Your task to perform on an android device: find photos in the google photos app Image 0: 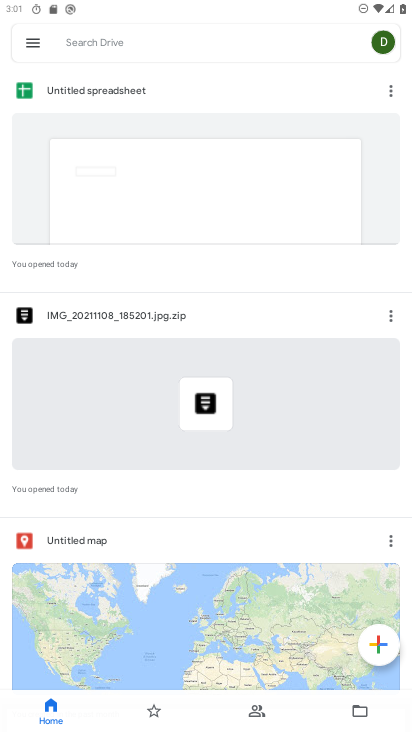
Step 0: press home button
Your task to perform on an android device: find photos in the google photos app Image 1: 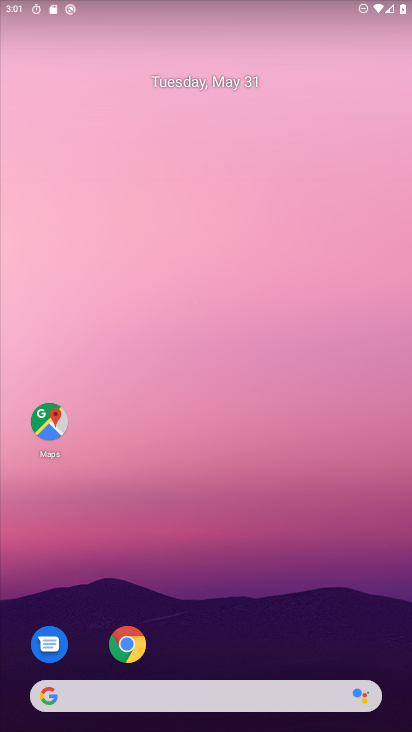
Step 1: drag from (394, 675) to (354, 169)
Your task to perform on an android device: find photos in the google photos app Image 2: 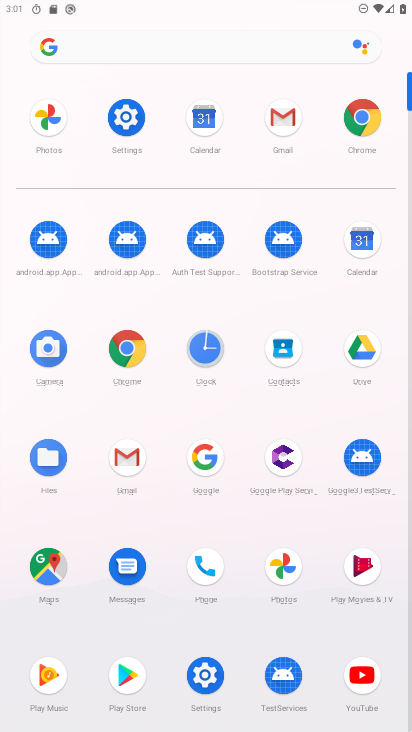
Step 2: click (282, 569)
Your task to perform on an android device: find photos in the google photos app Image 3: 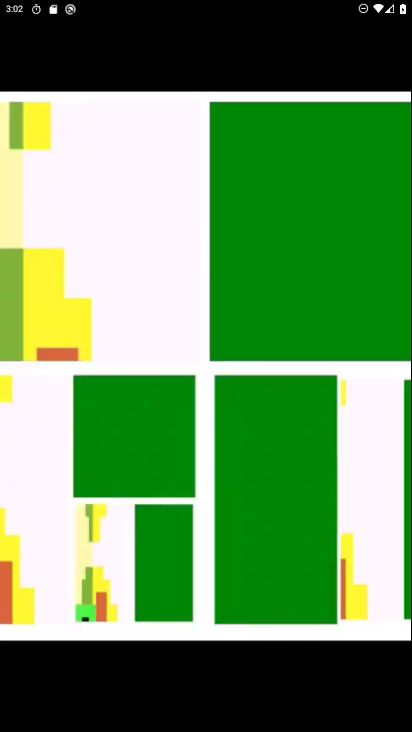
Step 3: press back button
Your task to perform on an android device: find photos in the google photos app Image 4: 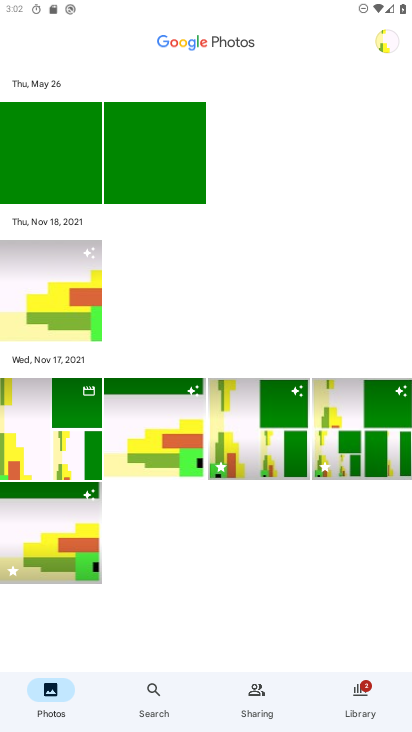
Step 4: click (174, 436)
Your task to perform on an android device: find photos in the google photos app Image 5: 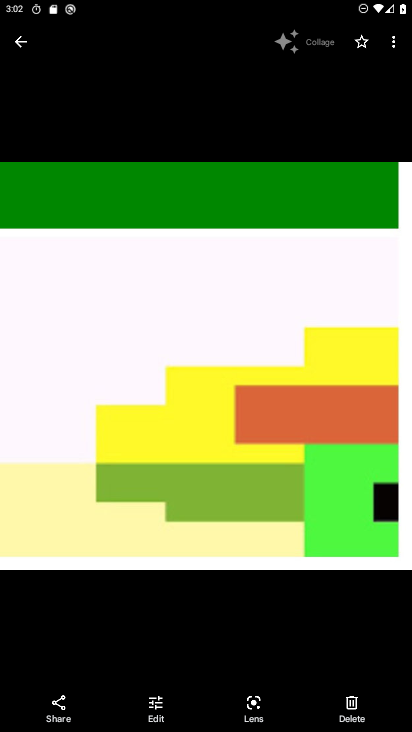
Step 5: click (357, 323)
Your task to perform on an android device: find photos in the google photos app Image 6: 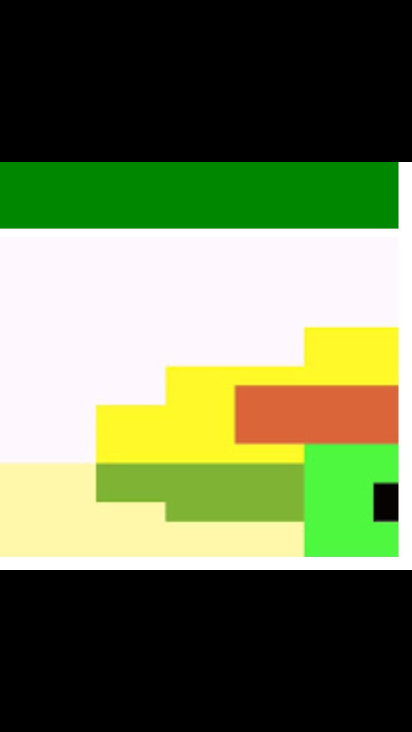
Step 6: click (22, 49)
Your task to perform on an android device: find photos in the google photos app Image 7: 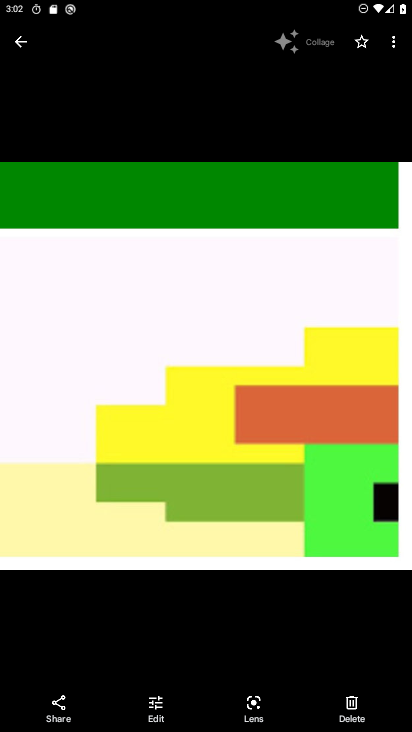
Step 7: click (21, 52)
Your task to perform on an android device: find photos in the google photos app Image 8: 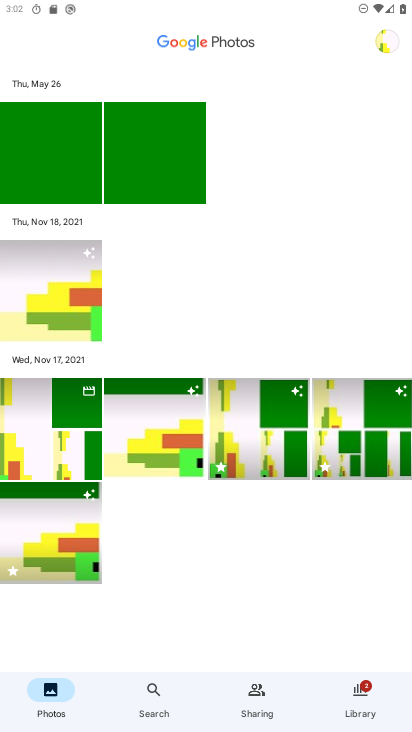
Step 8: click (254, 404)
Your task to perform on an android device: find photos in the google photos app Image 9: 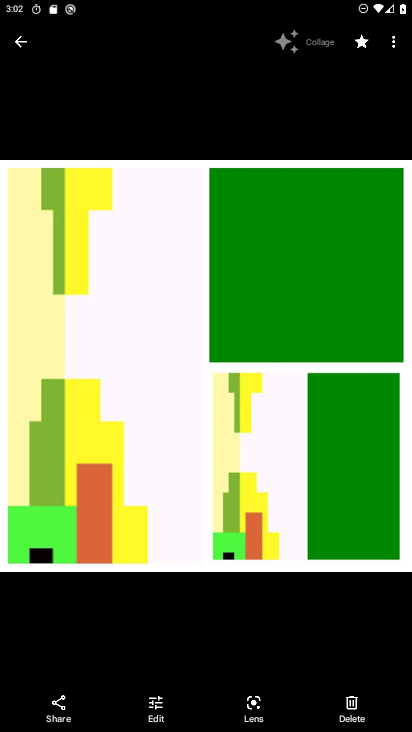
Step 9: click (20, 51)
Your task to perform on an android device: find photos in the google photos app Image 10: 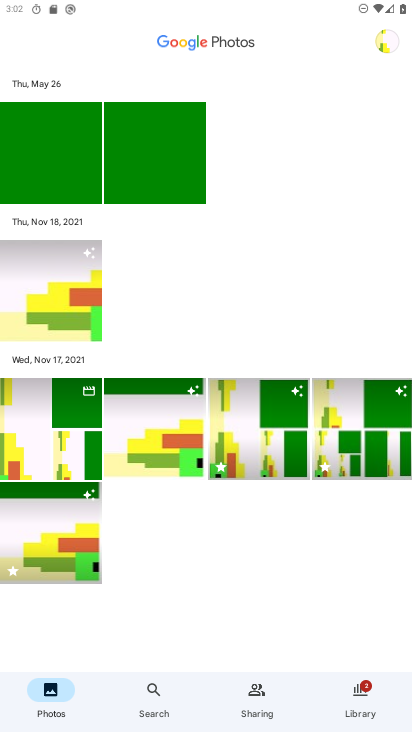
Step 10: task complete